Your task to perform on an android device: set the stopwatch Image 0: 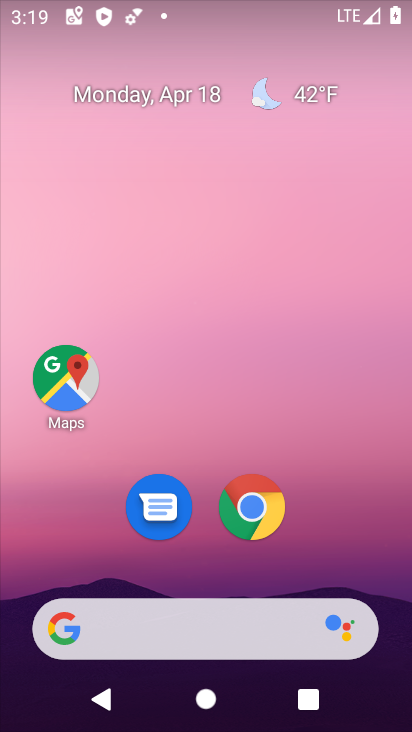
Step 0: drag from (389, 522) to (352, 126)
Your task to perform on an android device: set the stopwatch Image 1: 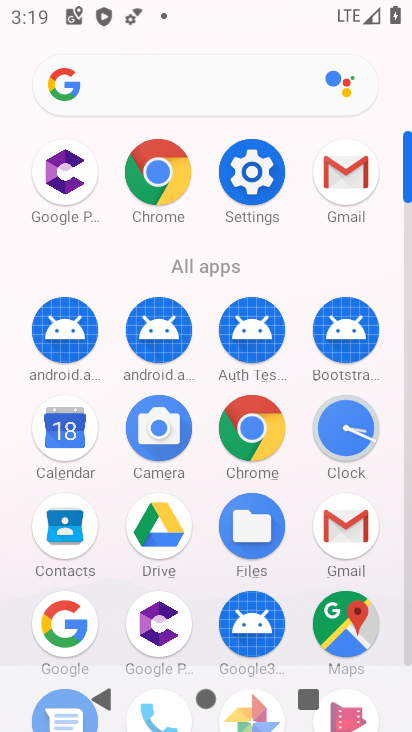
Step 1: click (336, 432)
Your task to perform on an android device: set the stopwatch Image 2: 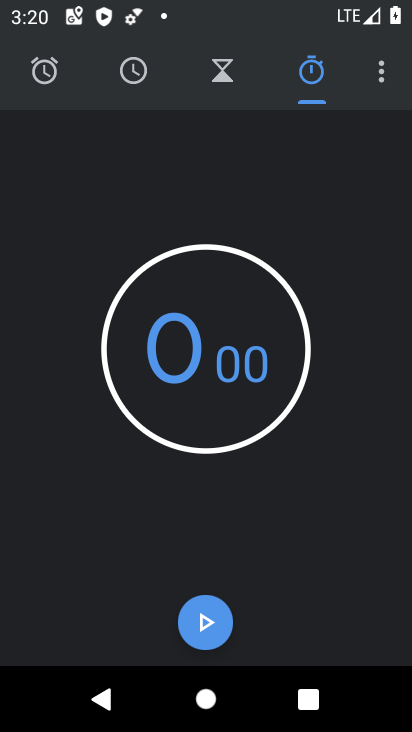
Step 2: click (206, 627)
Your task to perform on an android device: set the stopwatch Image 3: 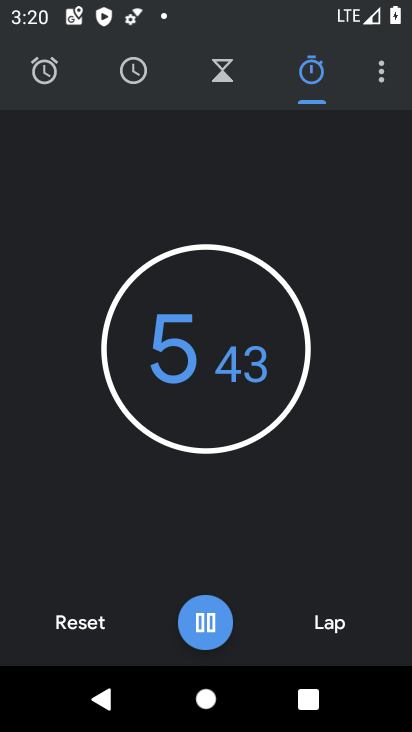
Step 3: click (210, 620)
Your task to perform on an android device: set the stopwatch Image 4: 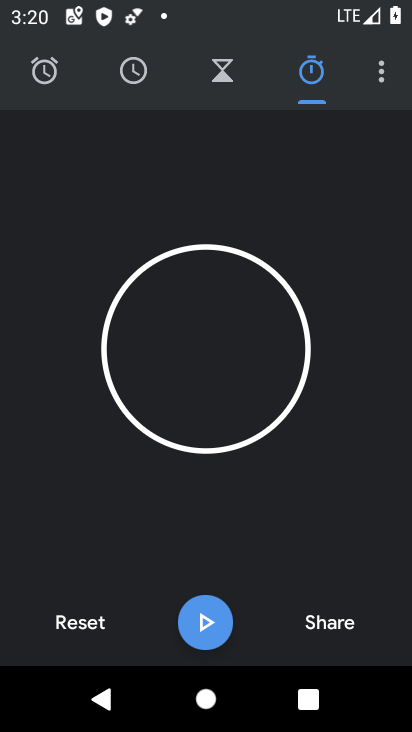
Step 4: task complete